Your task to perform on an android device: What's US dollar exchange rate against the Chinese Yuan? Image 0: 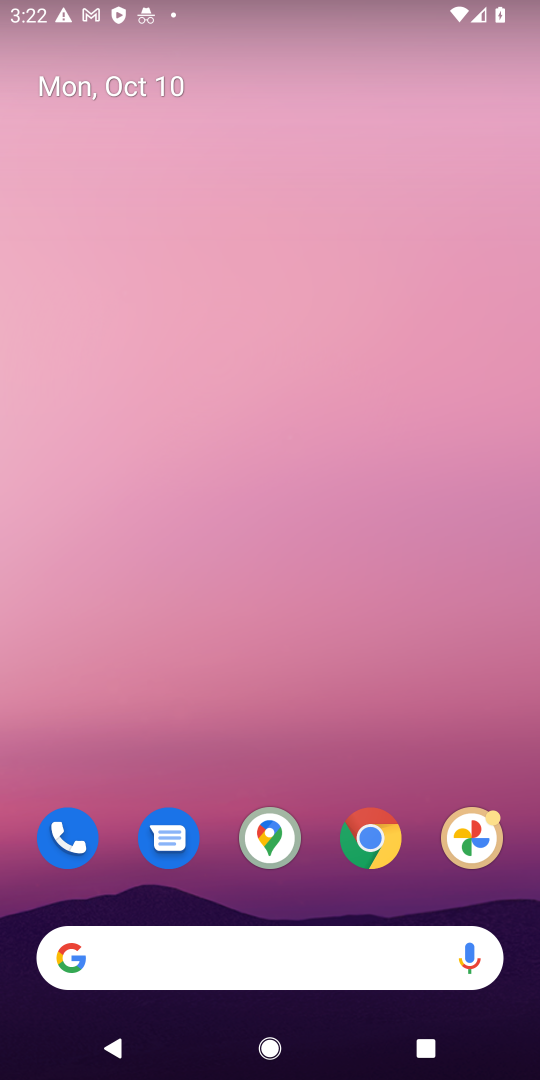
Step 0: click (374, 847)
Your task to perform on an android device: What's US dollar exchange rate against the Chinese Yuan? Image 1: 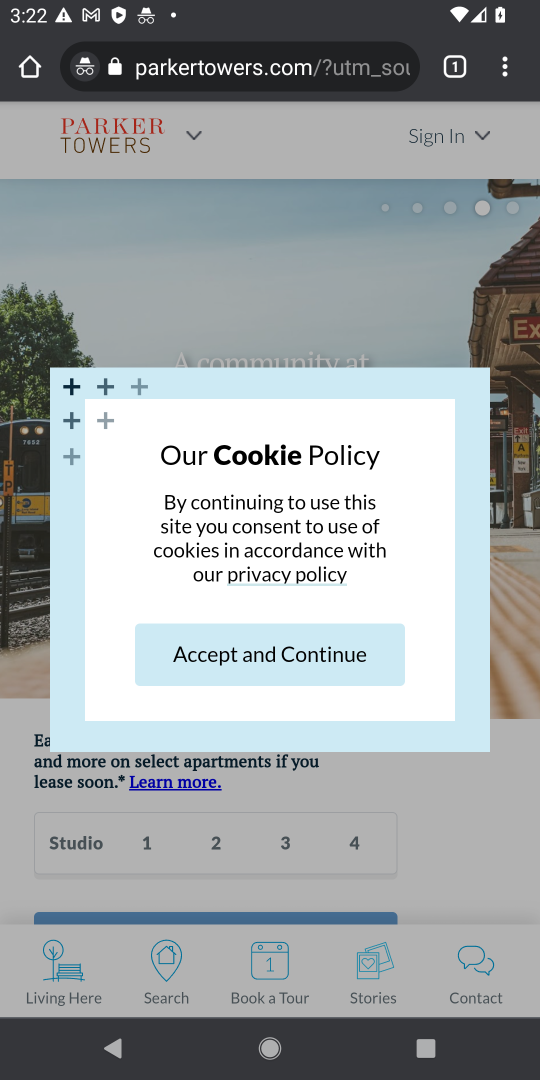
Step 1: click (251, 74)
Your task to perform on an android device: What's US dollar exchange rate against the Chinese Yuan? Image 2: 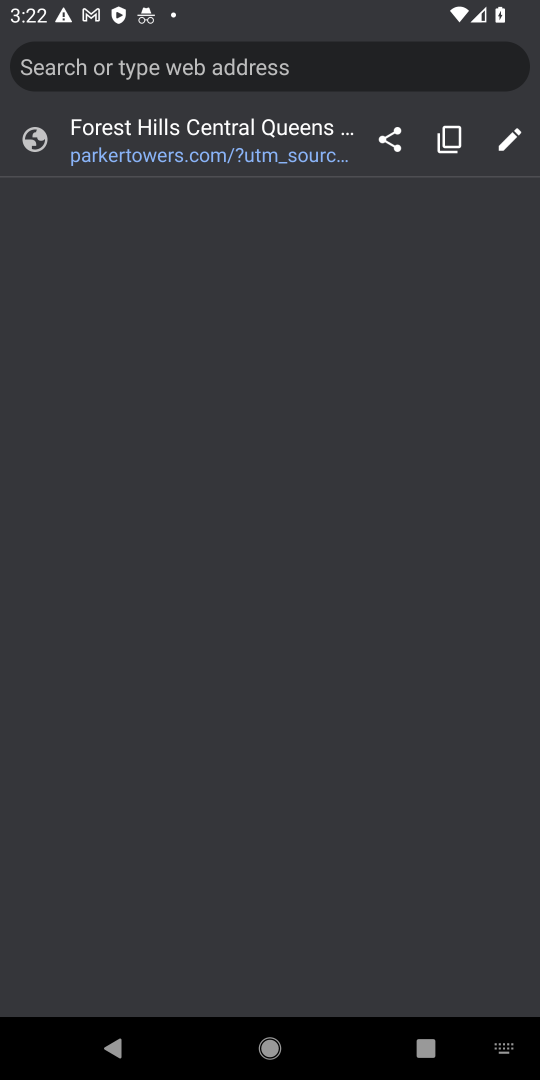
Step 2: type "What's US dollar exchange rate against the Chinese Yuan?"
Your task to perform on an android device: What's US dollar exchange rate against the Chinese Yuan? Image 3: 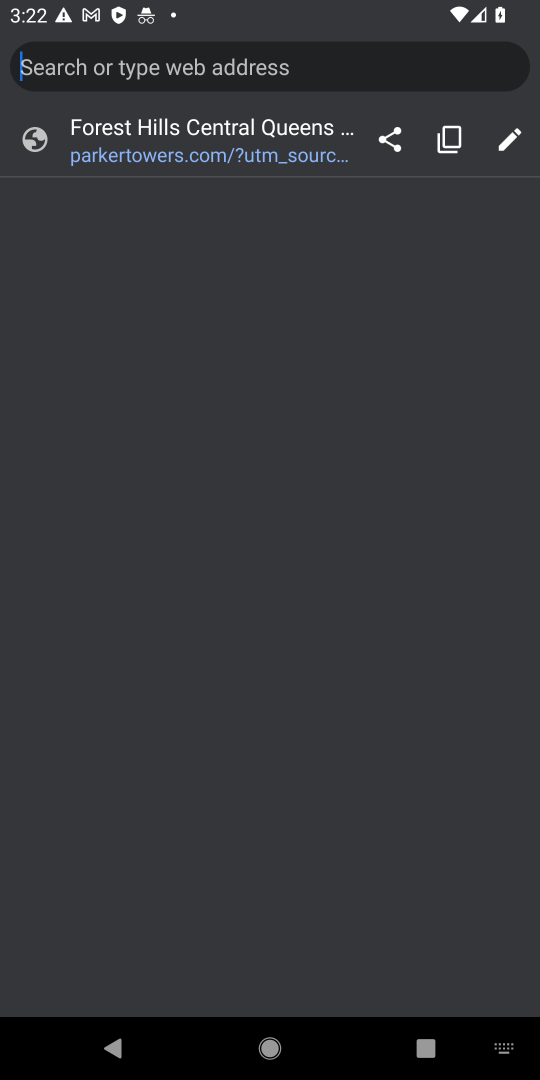
Step 3: click (189, 66)
Your task to perform on an android device: What's US dollar exchange rate against the Chinese Yuan? Image 4: 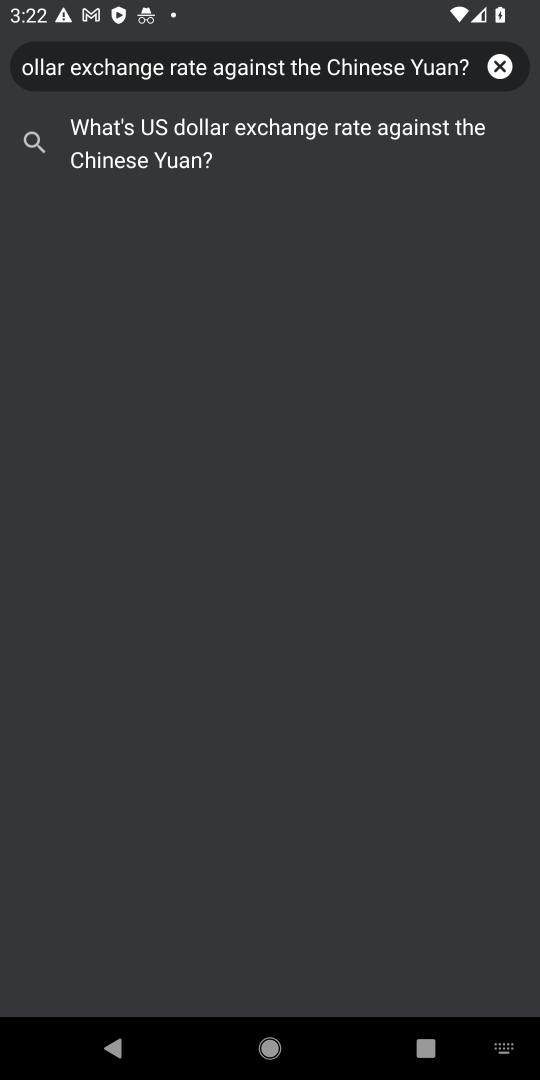
Step 4: click (283, 151)
Your task to perform on an android device: What's US dollar exchange rate against the Chinese Yuan? Image 5: 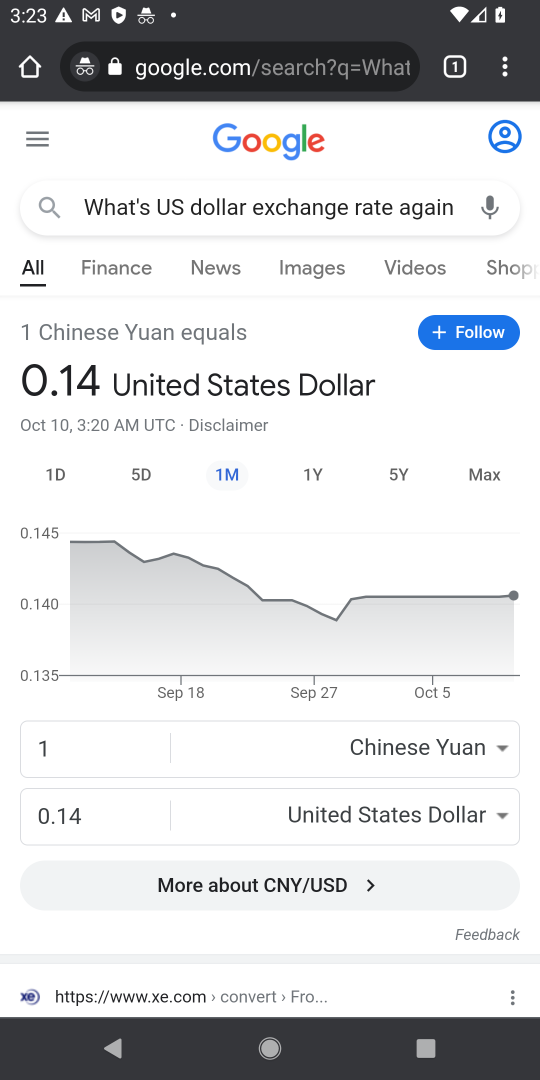
Step 5: task complete